Your task to perform on an android device: turn off location Image 0: 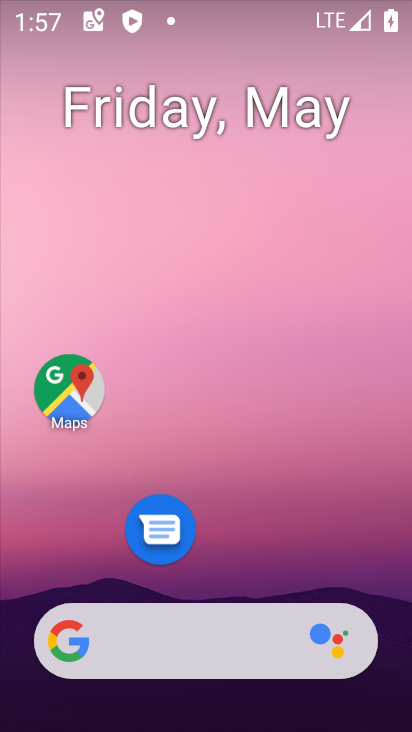
Step 0: drag from (221, 552) to (259, 107)
Your task to perform on an android device: turn off location Image 1: 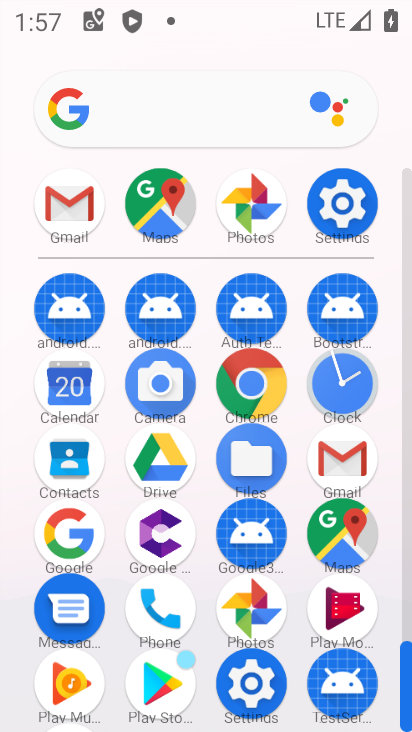
Step 1: click (342, 200)
Your task to perform on an android device: turn off location Image 2: 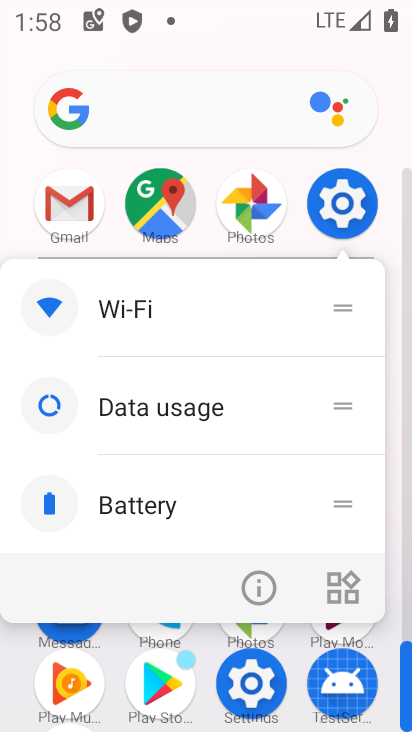
Step 2: click (254, 575)
Your task to perform on an android device: turn off location Image 3: 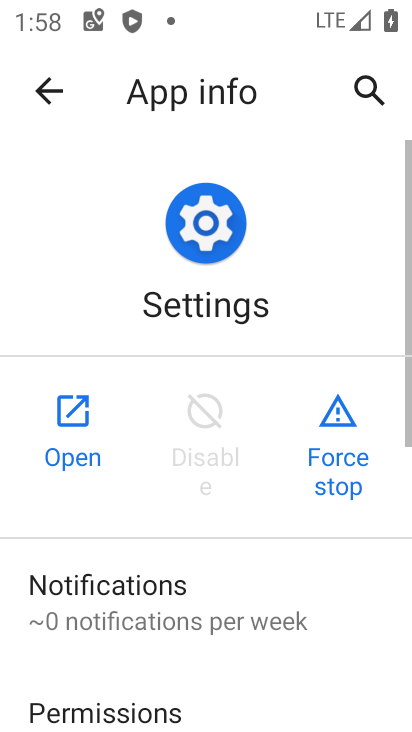
Step 3: click (63, 442)
Your task to perform on an android device: turn off location Image 4: 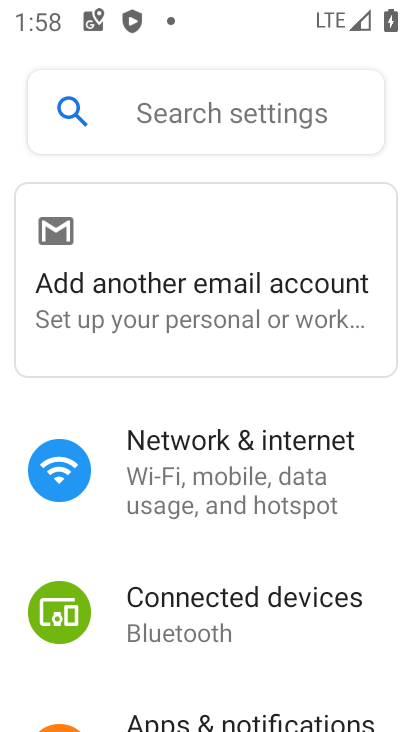
Step 4: drag from (153, 579) to (259, 2)
Your task to perform on an android device: turn off location Image 5: 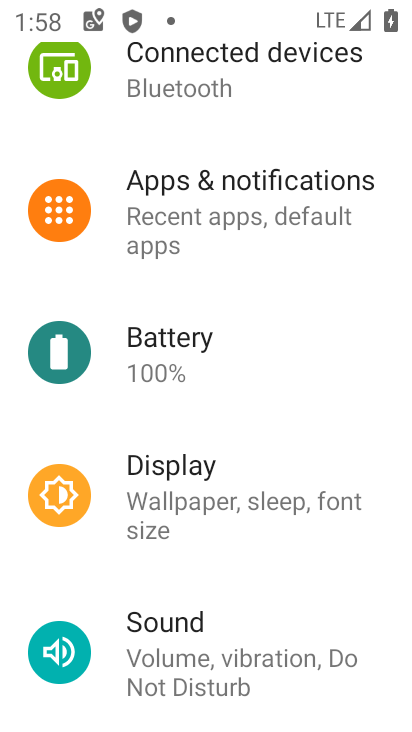
Step 5: drag from (235, 548) to (245, 210)
Your task to perform on an android device: turn off location Image 6: 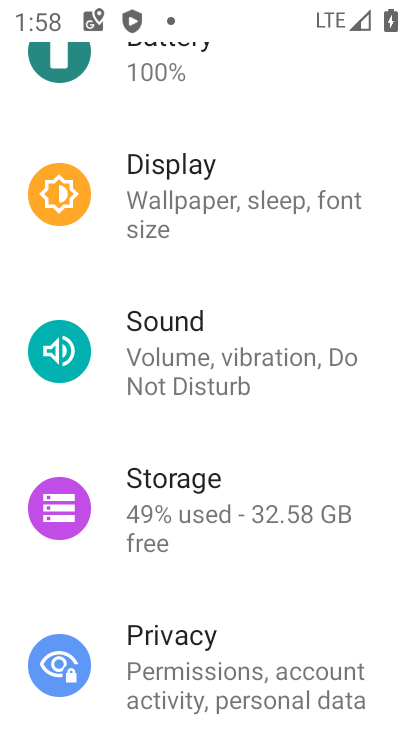
Step 6: drag from (223, 570) to (280, 186)
Your task to perform on an android device: turn off location Image 7: 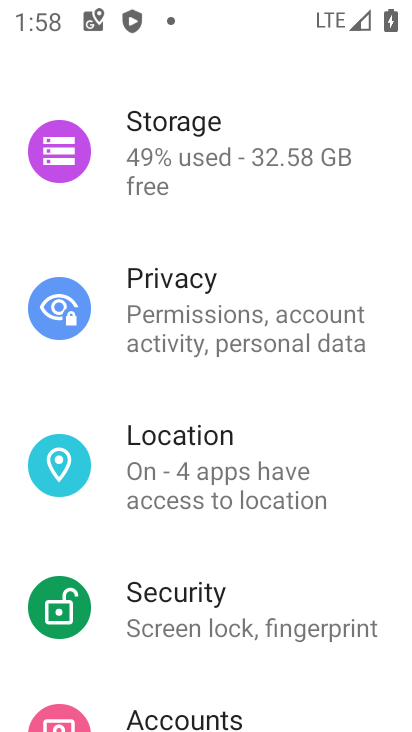
Step 7: click (207, 454)
Your task to perform on an android device: turn off location Image 8: 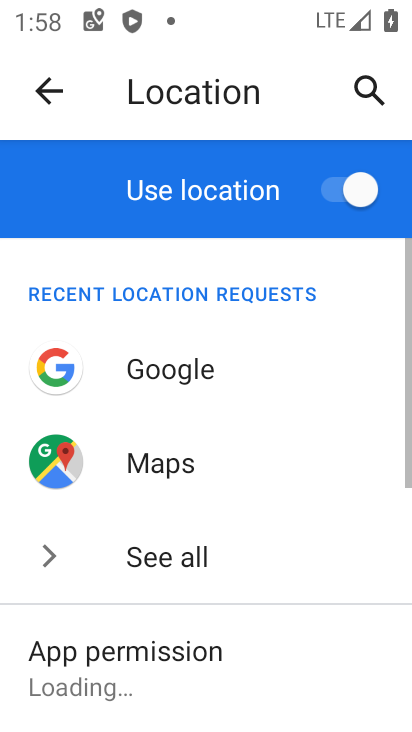
Step 8: drag from (210, 442) to (288, 210)
Your task to perform on an android device: turn off location Image 9: 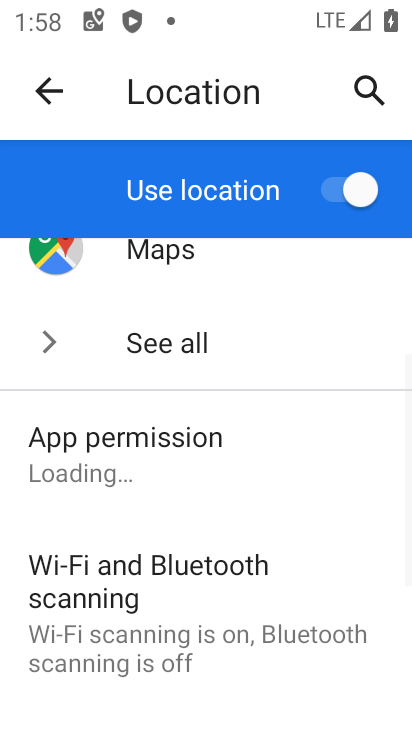
Step 9: click (323, 183)
Your task to perform on an android device: turn off location Image 10: 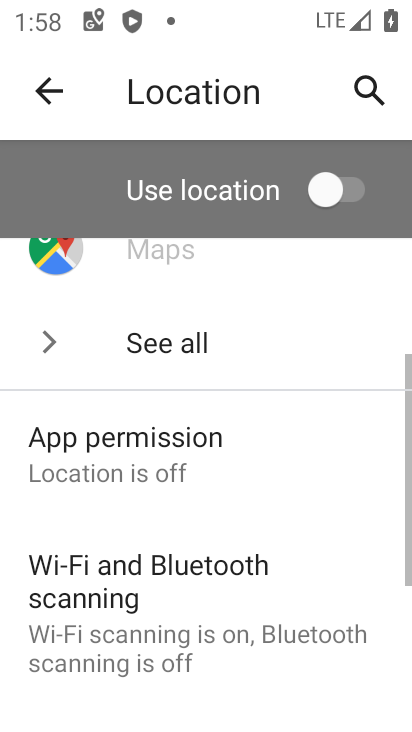
Step 10: task complete